Your task to perform on an android device: turn off priority inbox in the gmail app Image 0: 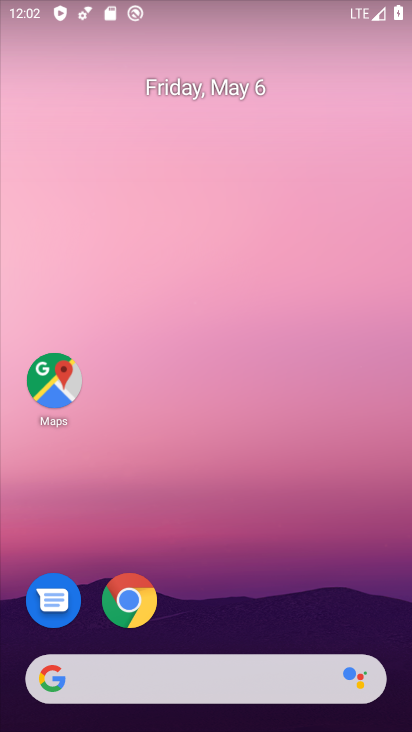
Step 0: drag from (334, 609) to (240, 30)
Your task to perform on an android device: turn off priority inbox in the gmail app Image 1: 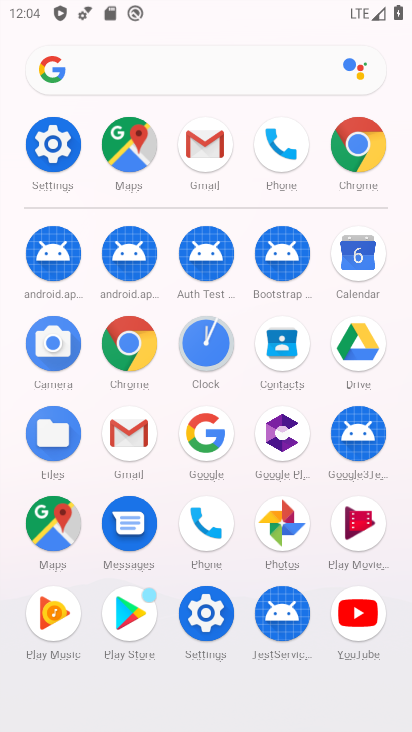
Step 1: click (130, 449)
Your task to perform on an android device: turn off priority inbox in the gmail app Image 2: 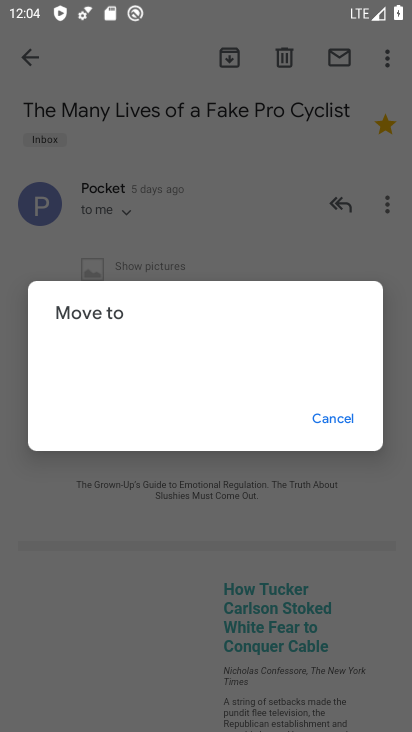
Step 2: click (339, 424)
Your task to perform on an android device: turn off priority inbox in the gmail app Image 3: 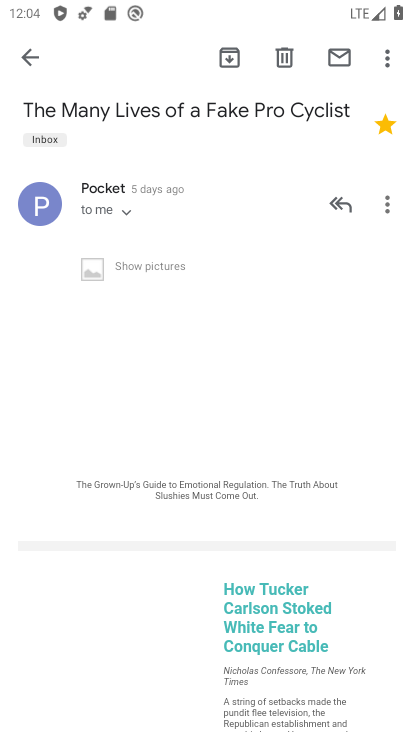
Step 3: press back button
Your task to perform on an android device: turn off priority inbox in the gmail app Image 4: 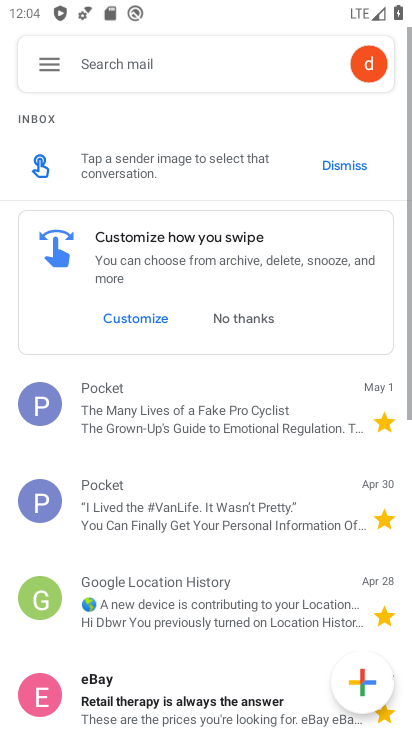
Step 4: click (45, 68)
Your task to perform on an android device: turn off priority inbox in the gmail app Image 5: 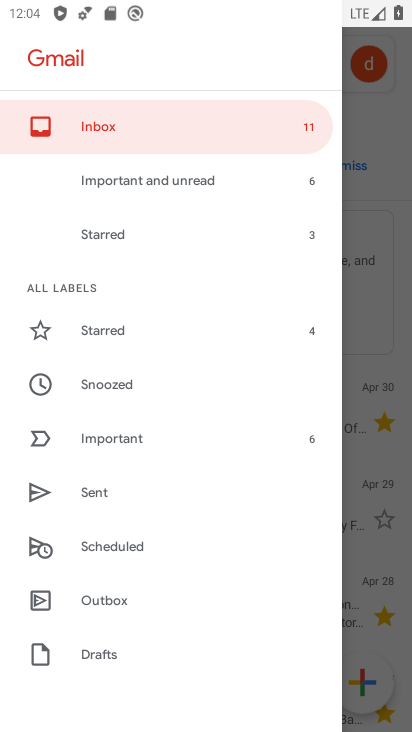
Step 5: drag from (192, 656) to (199, 164)
Your task to perform on an android device: turn off priority inbox in the gmail app Image 6: 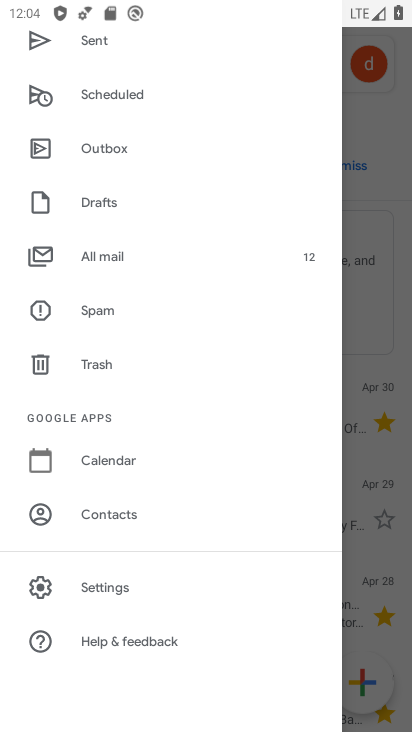
Step 6: click (138, 583)
Your task to perform on an android device: turn off priority inbox in the gmail app Image 7: 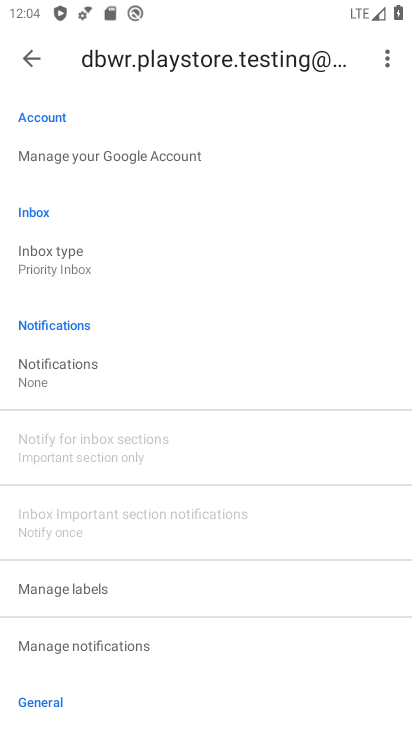
Step 7: click (81, 267)
Your task to perform on an android device: turn off priority inbox in the gmail app Image 8: 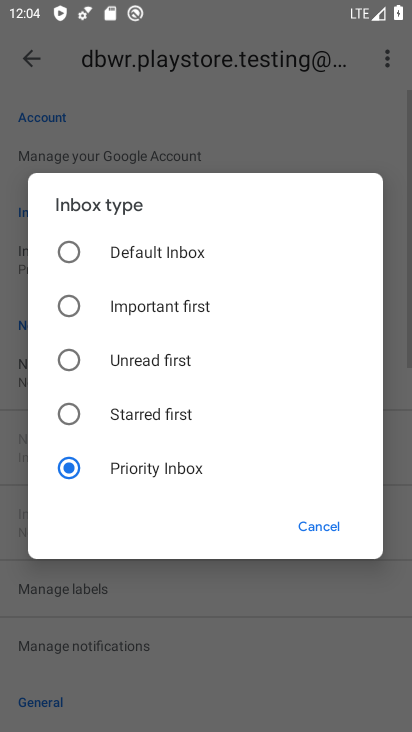
Step 8: click (182, 361)
Your task to perform on an android device: turn off priority inbox in the gmail app Image 9: 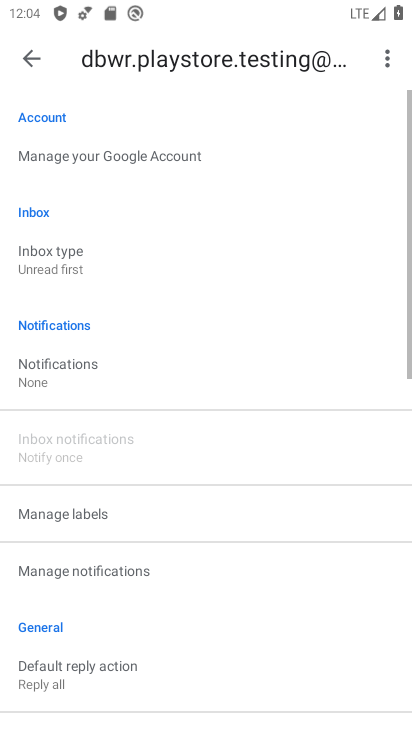
Step 9: task complete